Your task to perform on an android device: What's the latest video from GameSpot Reviews? Image 0: 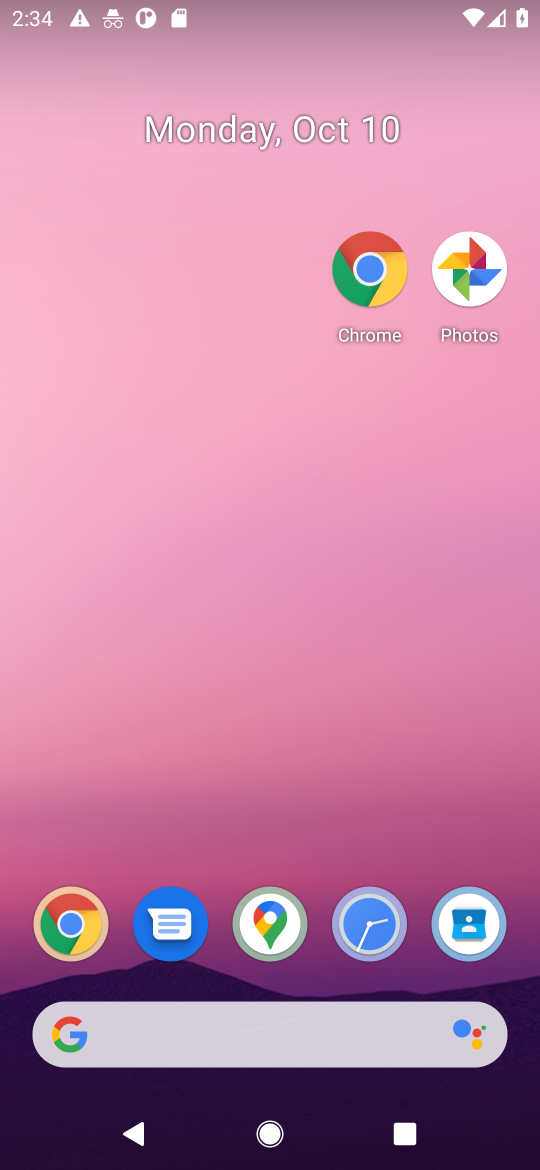
Step 0: drag from (286, 838) to (471, 38)
Your task to perform on an android device: What's the latest video from GameSpot Reviews? Image 1: 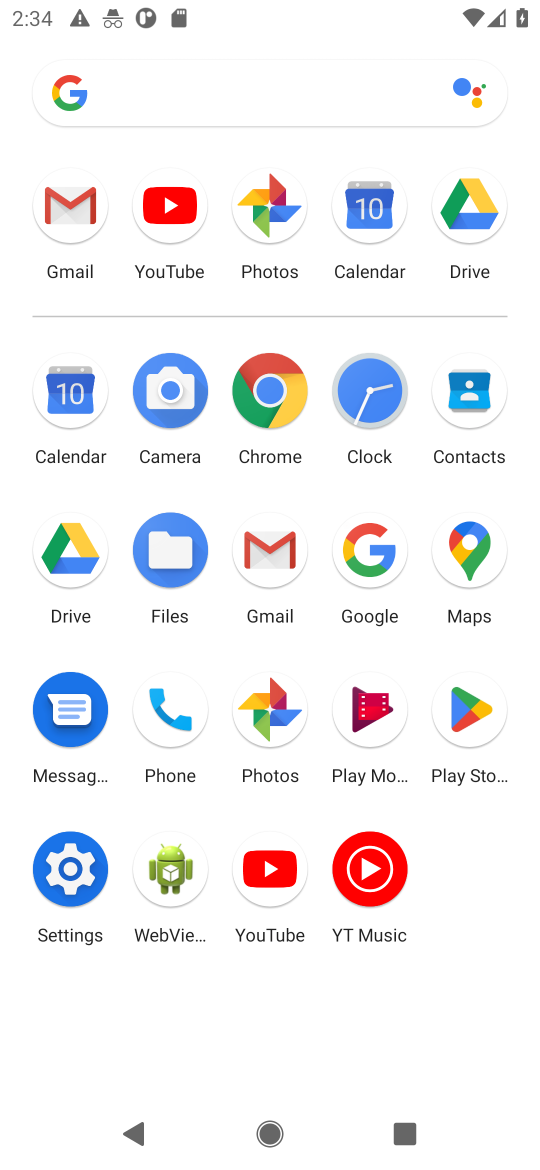
Step 1: click (266, 406)
Your task to perform on an android device: What's the latest video from GameSpot Reviews? Image 2: 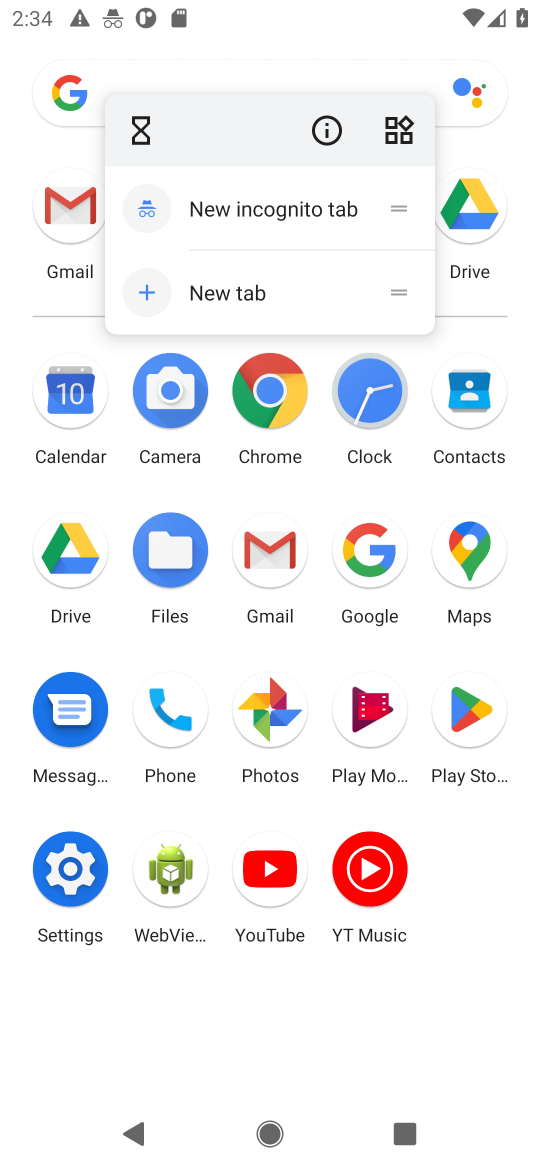
Step 2: click (307, 55)
Your task to perform on an android device: What's the latest video from GameSpot Reviews? Image 3: 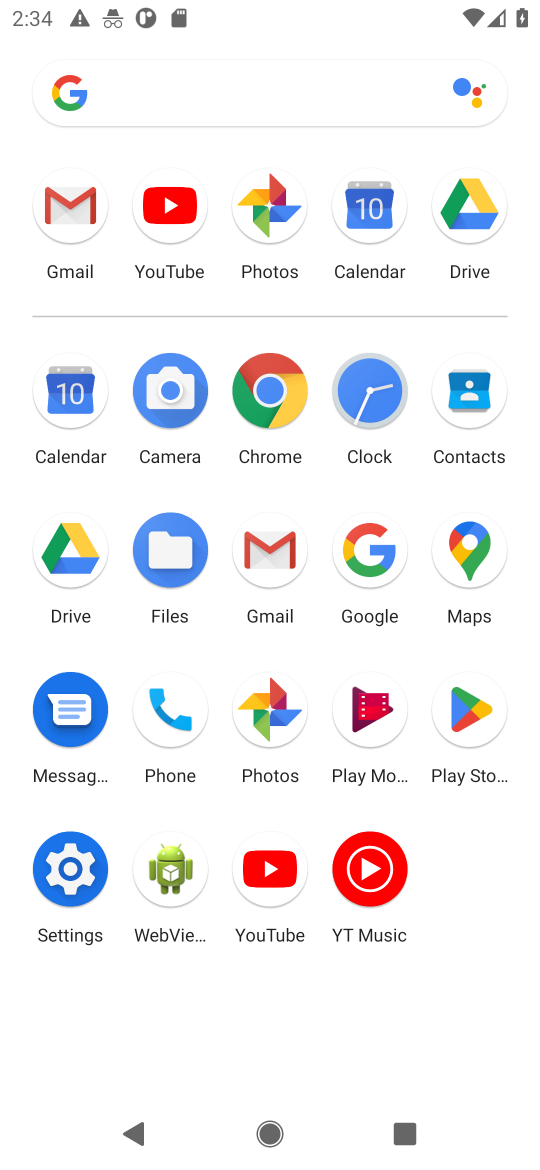
Step 3: click (269, 386)
Your task to perform on an android device: What's the latest video from GameSpot Reviews? Image 4: 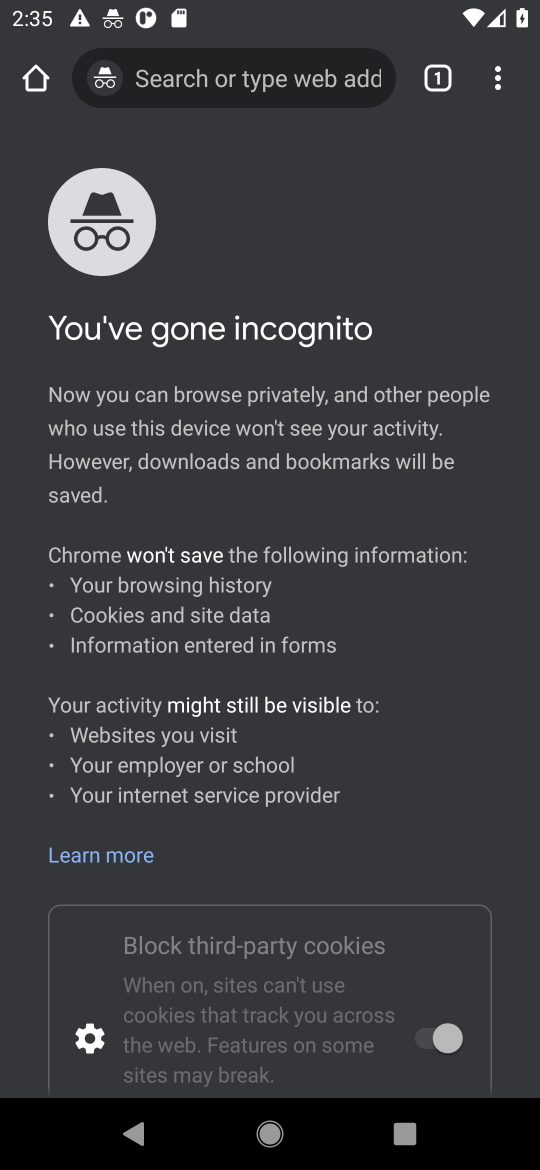
Step 4: drag from (496, 87) to (239, 163)
Your task to perform on an android device: What's the latest video from GameSpot Reviews? Image 5: 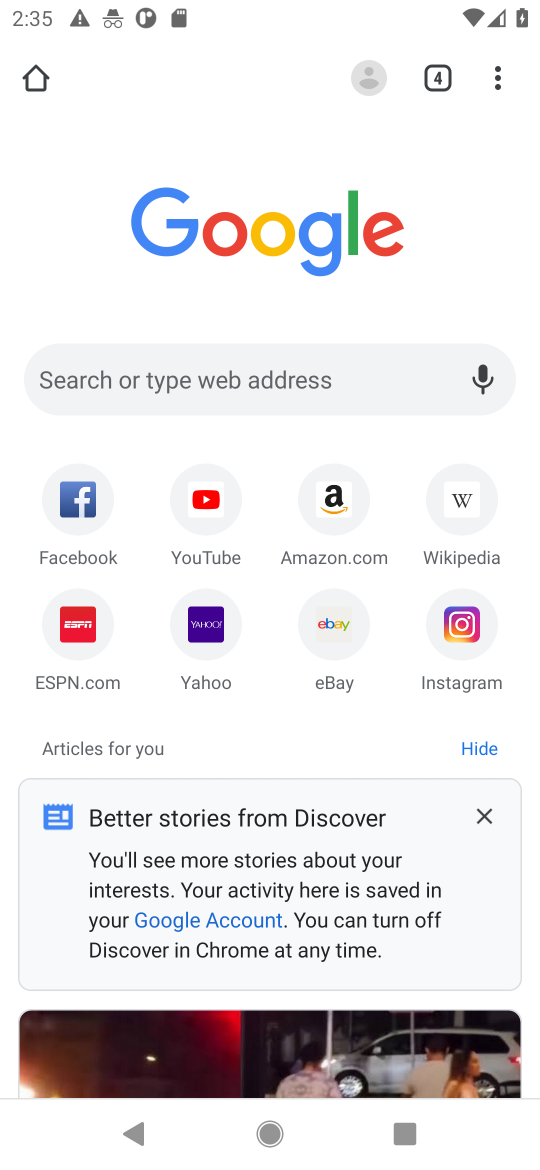
Step 5: click (133, 390)
Your task to perform on an android device: What's the latest video from GameSpot Reviews? Image 6: 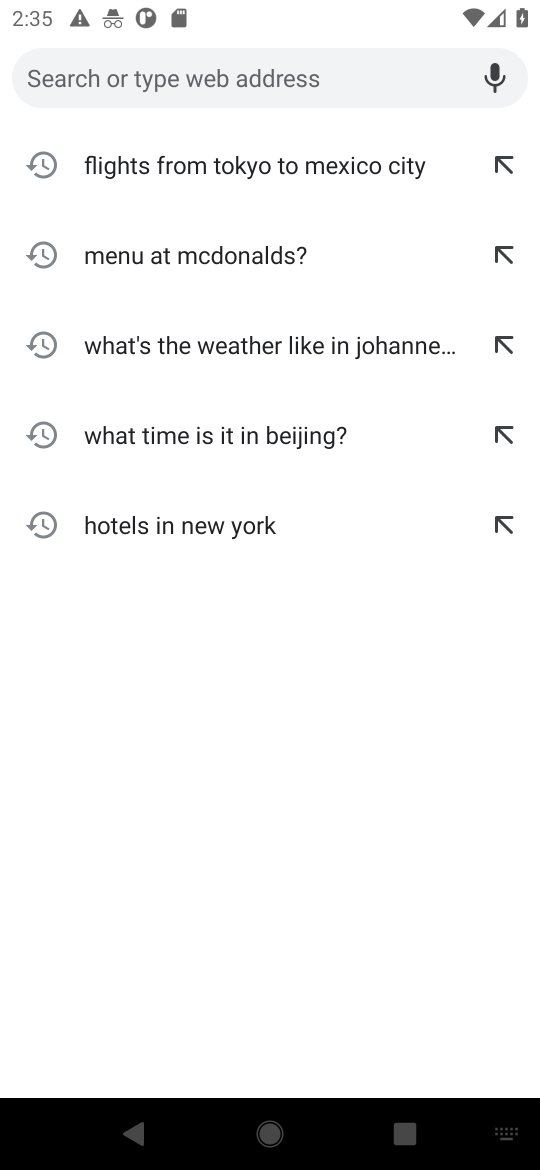
Step 6: type "What's the latest video from GameSpot Reviews?"
Your task to perform on an android device: What's the latest video from GameSpot Reviews? Image 7: 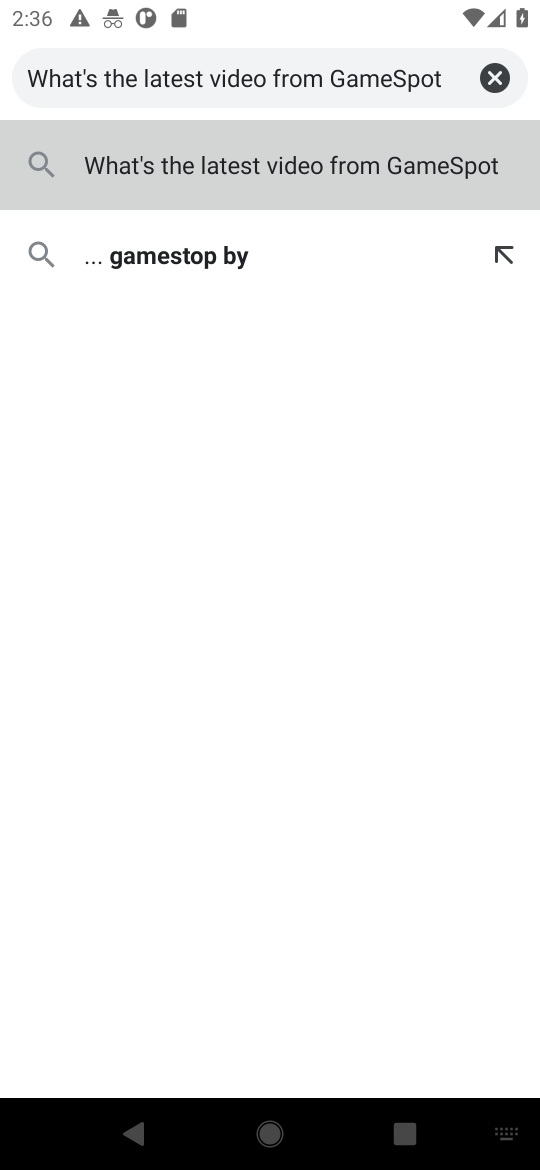
Step 7: click (269, 169)
Your task to perform on an android device: What's the latest video from GameSpot Reviews? Image 8: 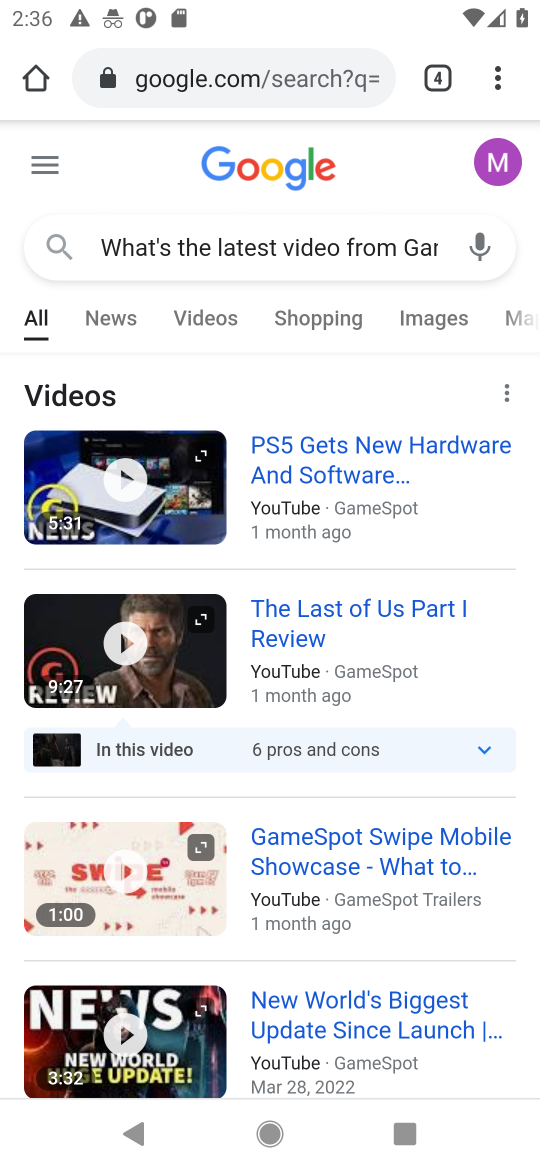
Step 8: task complete